Your task to perform on an android device: change keyboard looks Image 0: 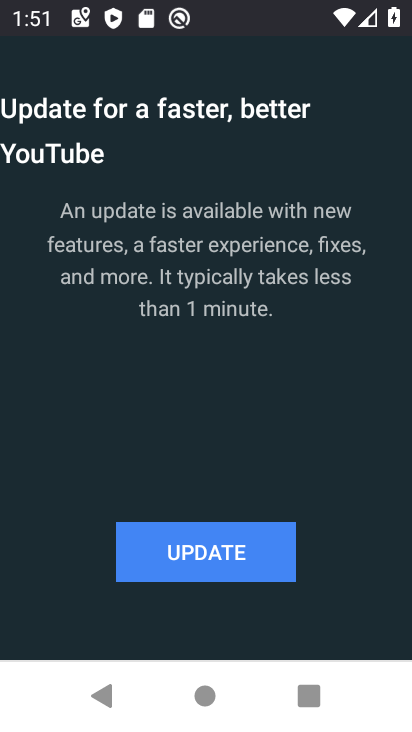
Step 0: press home button
Your task to perform on an android device: change keyboard looks Image 1: 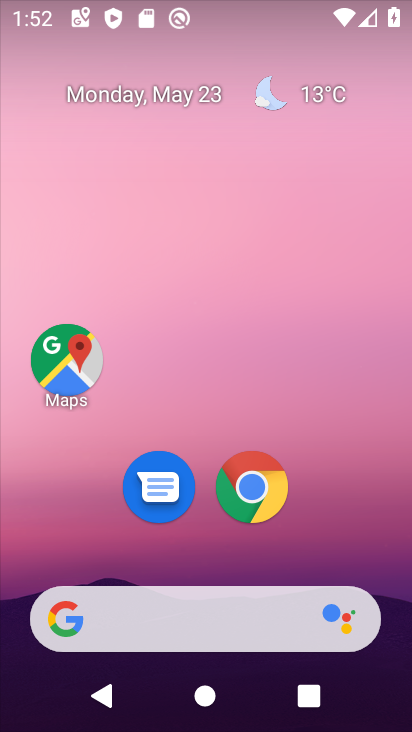
Step 1: drag from (393, 600) to (365, 125)
Your task to perform on an android device: change keyboard looks Image 2: 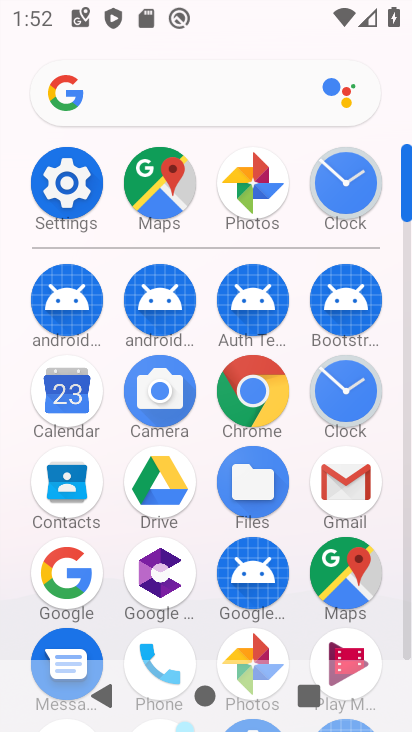
Step 2: click (404, 645)
Your task to perform on an android device: change keyboard looks Image 3: 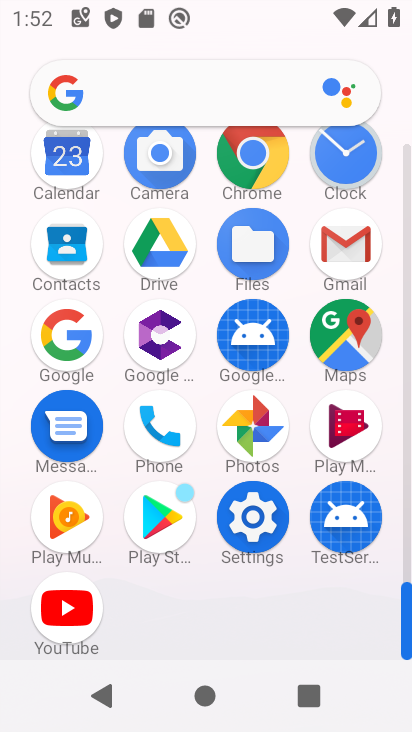
Step 3: click (256, 518)
Your task to perform on an android device: change keyboard looks Image 4: 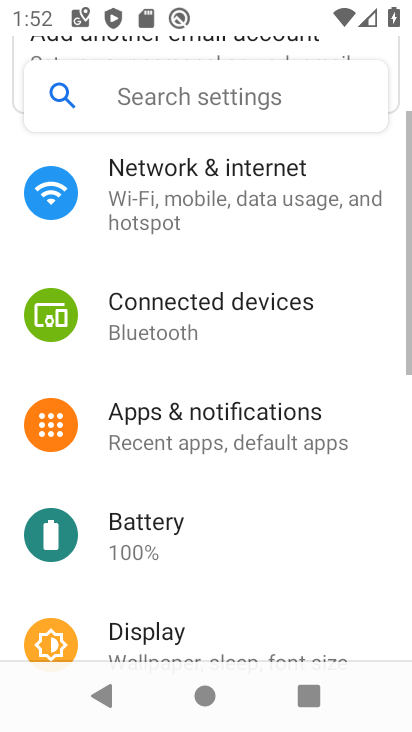
Step 4: drag from (291, 622) to (298, 4)
Your task to perform on an android device: change keyboard looks Image 5: 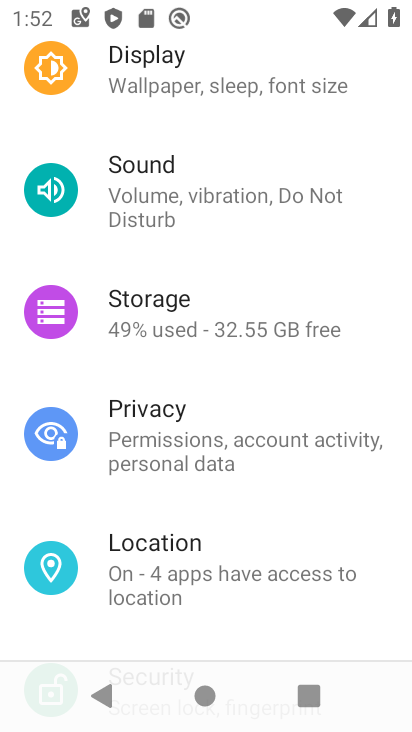
Step 5: drag from (306, 537) to (319, 24)
Your task to perform on an android device: change keyboard looks Image 6: 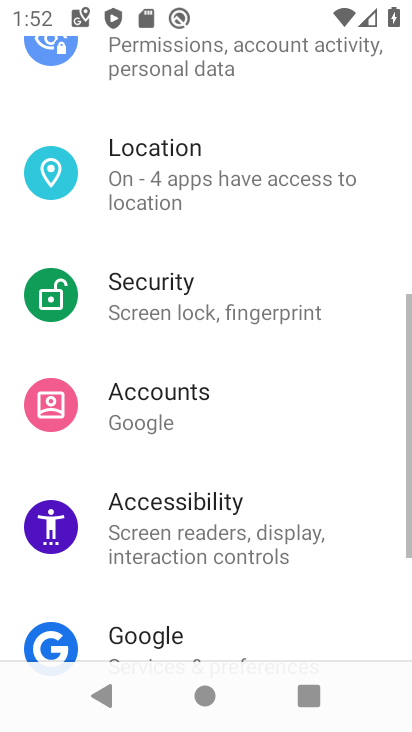
Step 6: drag from (330, 417) to (336, 133)
Your task to perform on an android device: change keyboard looks Image 7: 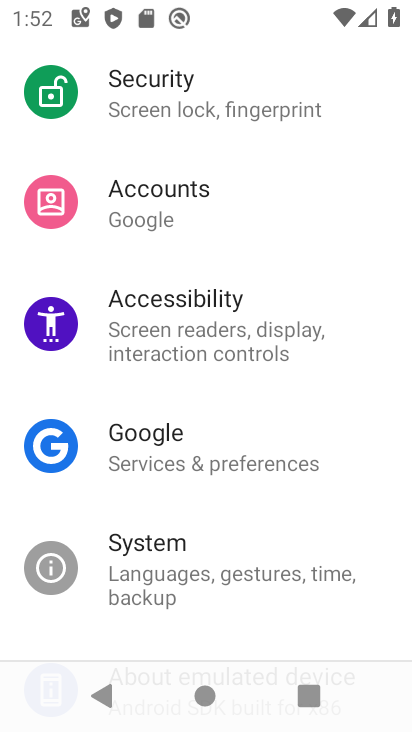
Step 7: drag from (291, 617) to (298, 305)
Your task to perform on an android device: change keyboard looks Image 8: 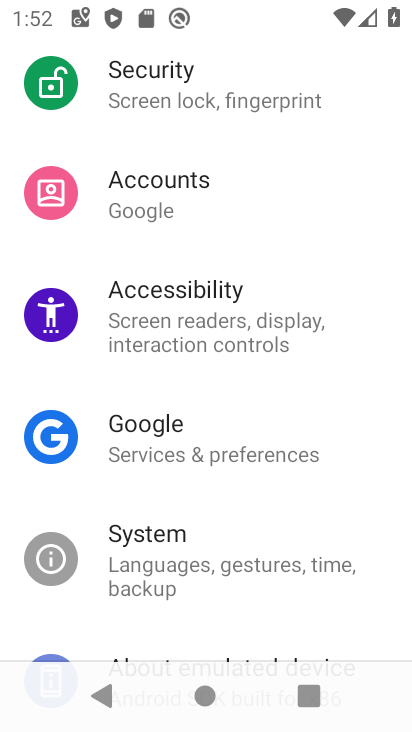
Step 8: click (179, 562)
Your task to perform on an android device: change keyboard looks Image 9: 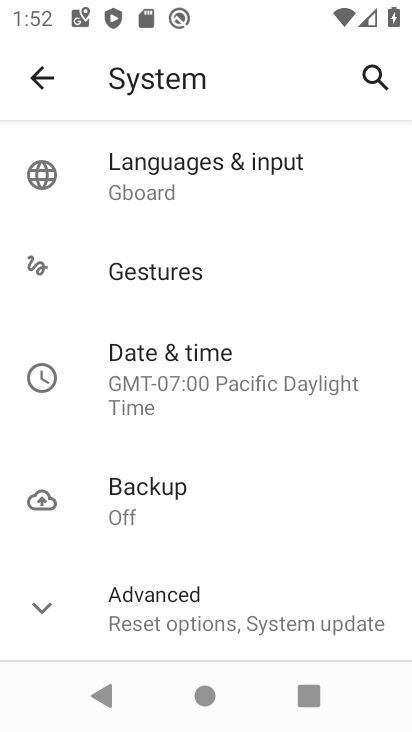
Step 9: click (145, 170)
Your task to perform on an android device: change keyboard looks Image 10: 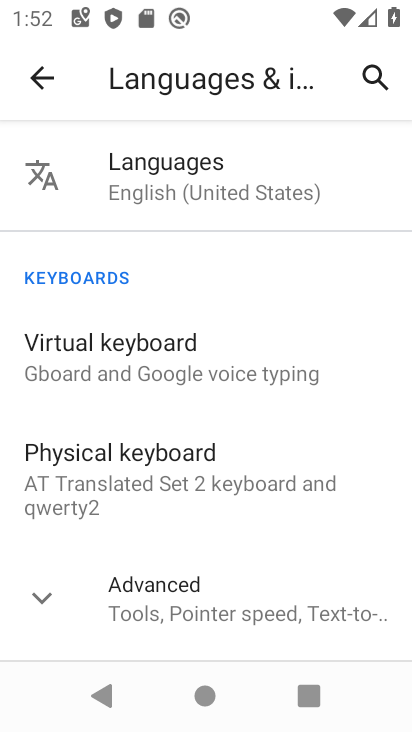
Step 10: click (134, 471)
Your task to perform on an android device: change keyboard looks Image 11: 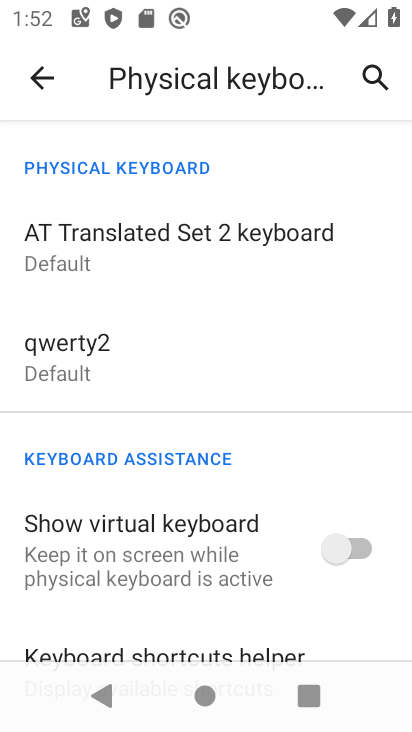
Step 11: click (40, 337)
Your task to perform on an android device: change keyboard looks Image 12: 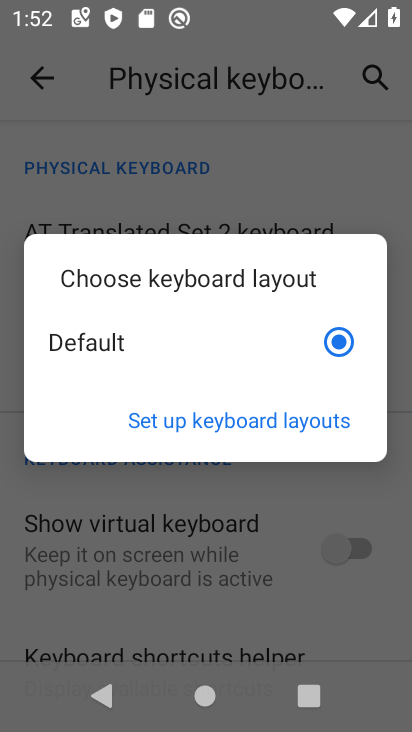
Step 12: click (217, 419)
Your task to perform on an android device: change keyboard looks Image 13: 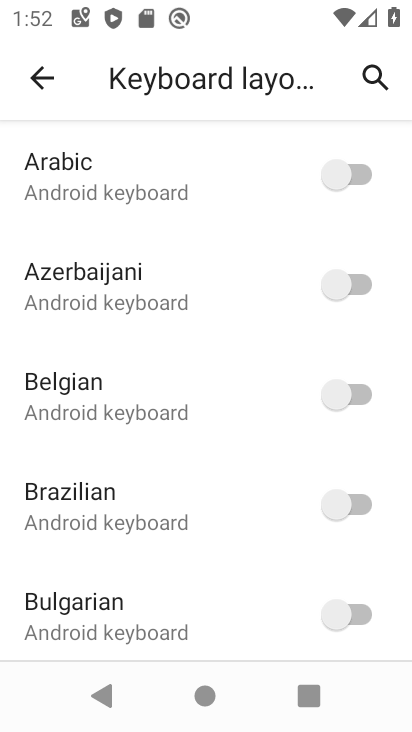
Step 13: click (358, 612)
Your task to perform on an android device: change keyboard looks Image 14: 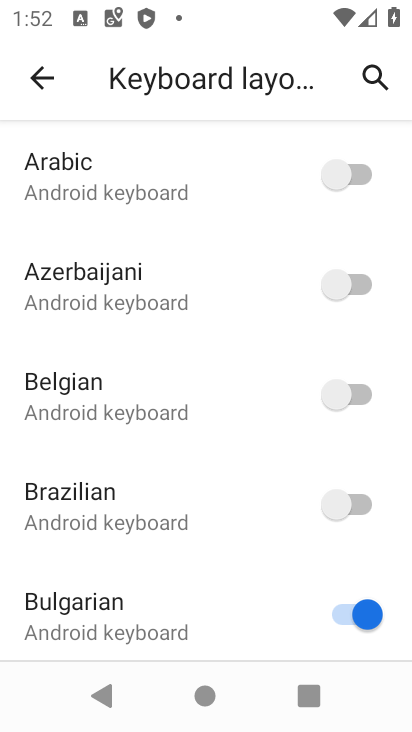
Step 14: task complete